Your task to perform on an android device: check android version Image 0: 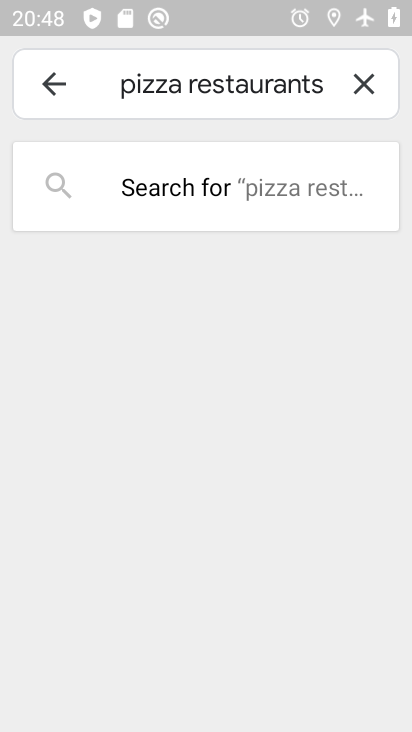
Step 0: press home button
Your task to perform on an android device: check android version Image 1: 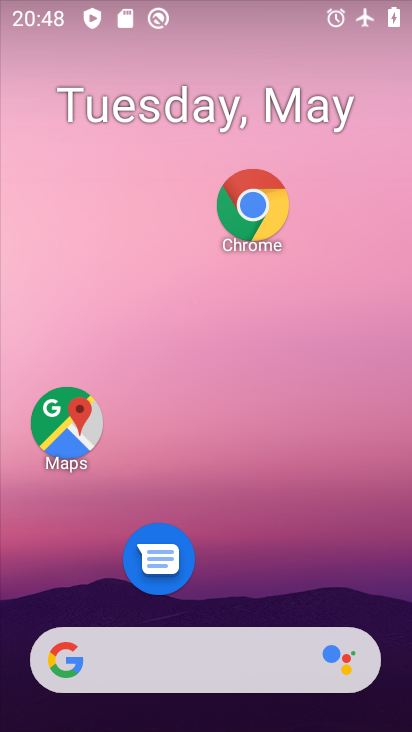
Step 1: drag from (219, 582) to (203, 152)
Your task to perform on an android device: check android version Image 2: 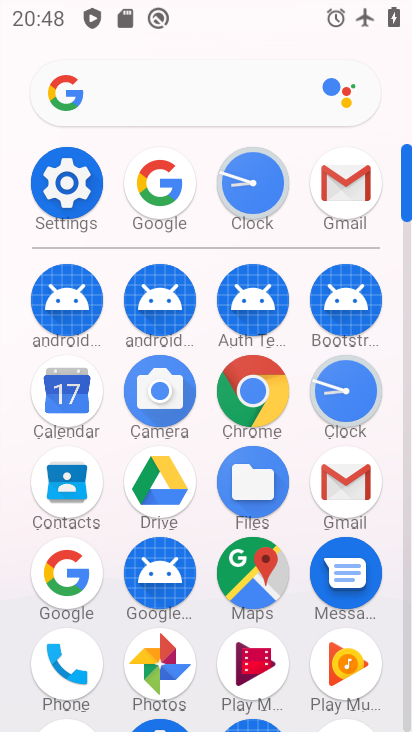
Step 2: click (42, 195)
Your task to perform on an android device: check android version Image 3: 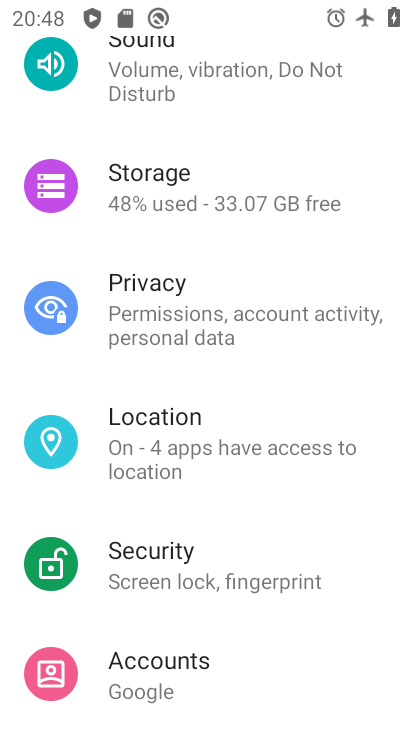
Step 3: drag from (227, 651) to (228, 340)
Your task to perform on an android device: check android version Image 4: 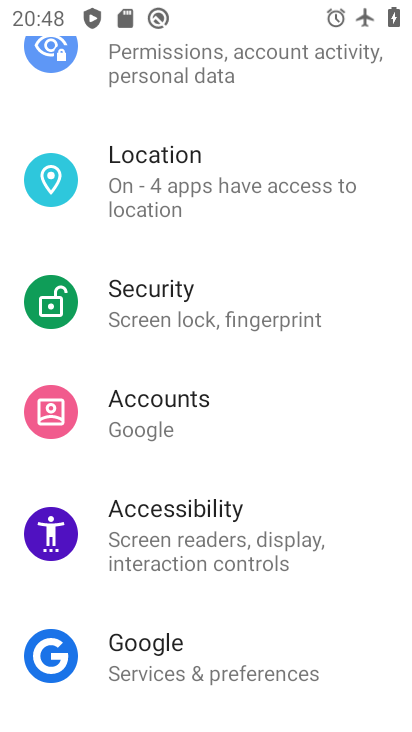
Step 4: drag from (227, 554) to (224, 244)
Your task to perform on an android device: check android version Image 5: 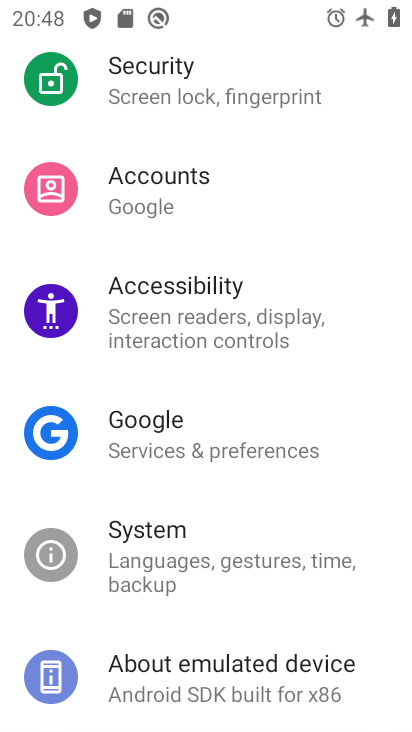
Step 5: drag from (230, 468) to (228, 177)
Your task to perform on an android device: check android version Image 6: 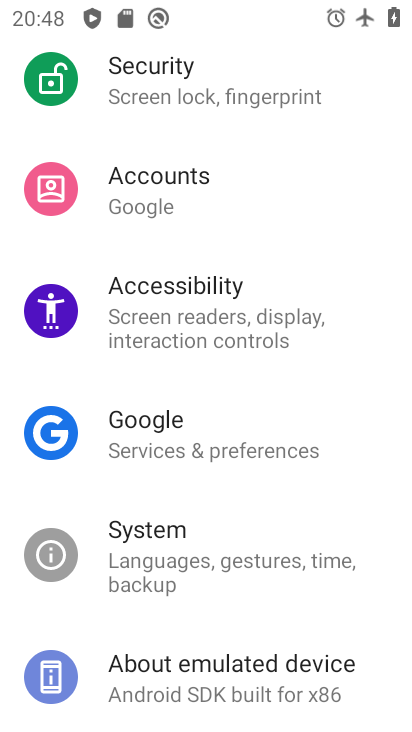
Step 6: drag from (230, 173) to (231, 393)
Your task to perform on an android device: check android version Image 7: 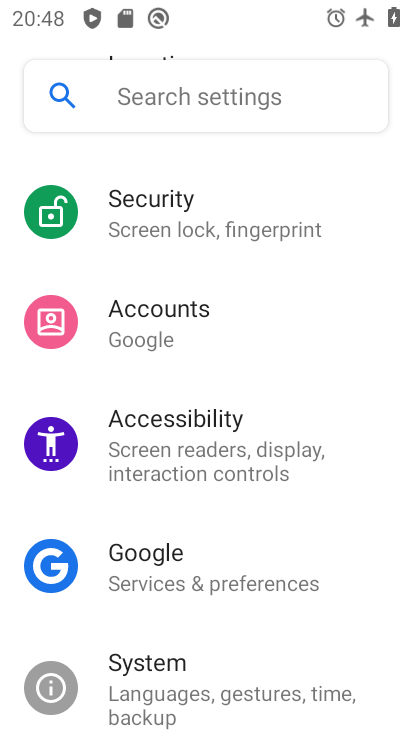
Step 7: drag from (212, 199) to (212, 467)
Your task to perform on an android device: check android version Image 8: 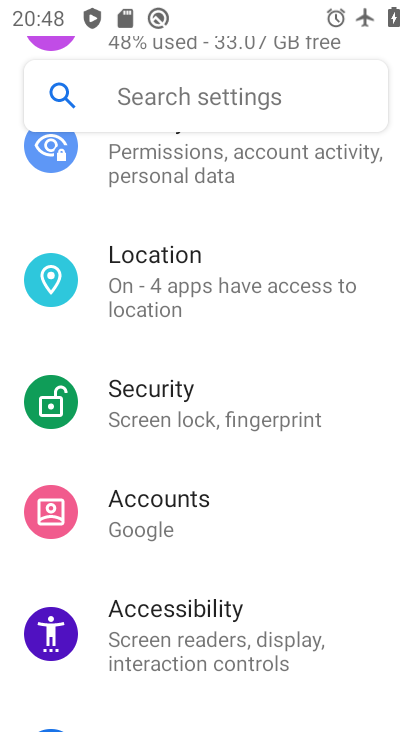
Step 8: drag from (213, 376) to (220, 563)
Your task to perform on an android device: check android version Image 9: 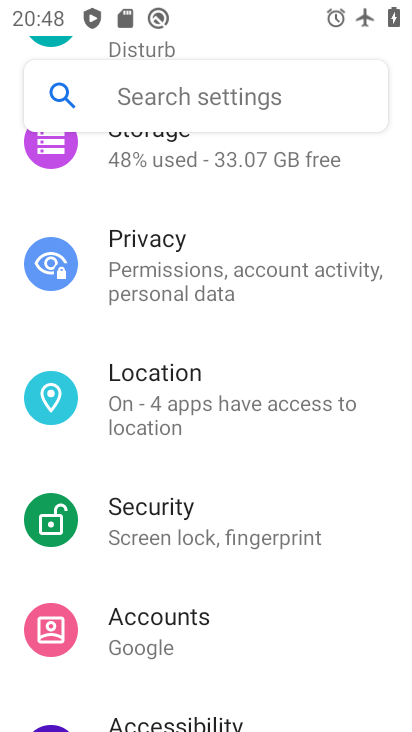
Step 9: drag from (242, 330) to (237, 478)
Your task to perform on an android device: check android version Image 10: 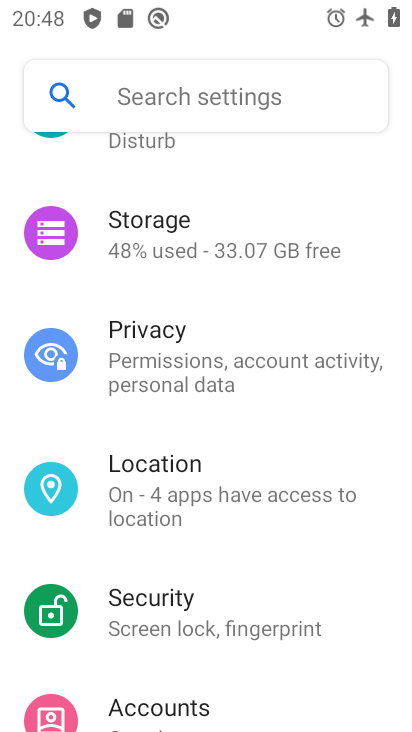
Step 10: drag from (237, 293) to (237, 477)
Your task to perform on an android device: check android version Image 11: 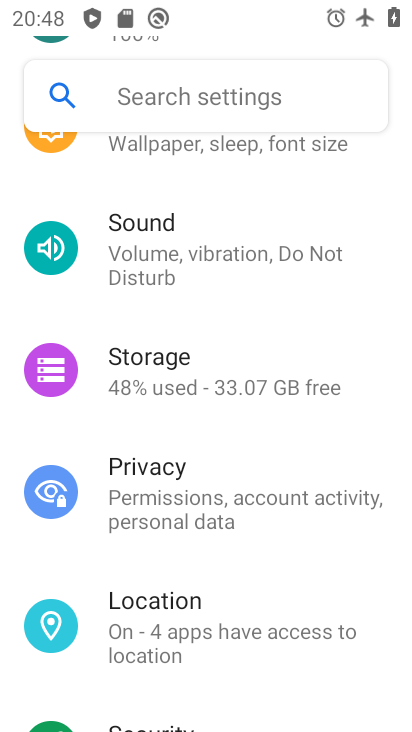
Step 11: drag from (237, 325) to (233, 469)
Your task to perform on an android device: check android version Image 12: 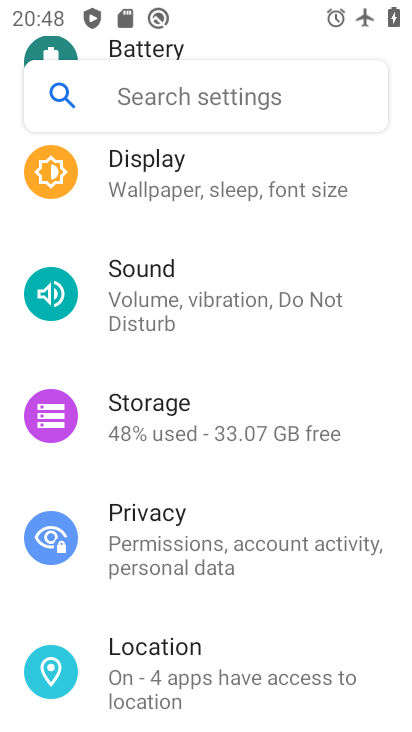
Step 12: drag from (229, 297) to (229, 504)
Your task to perform on an android device: check android version Image 13: 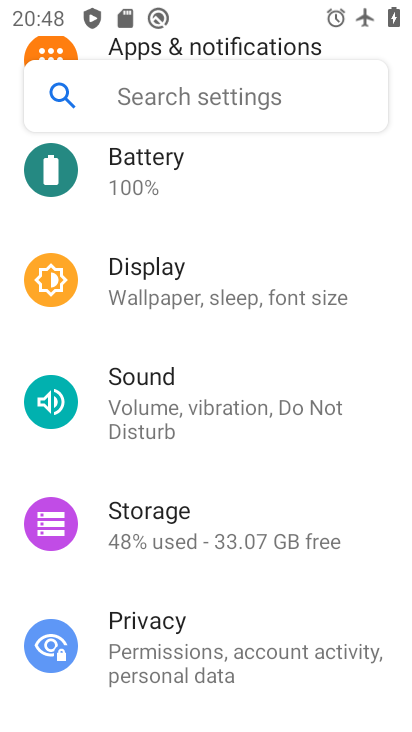
Step 13: drag from (210, 512) to (216, 144)
Your task to perform on an android device: check android version Image 14: 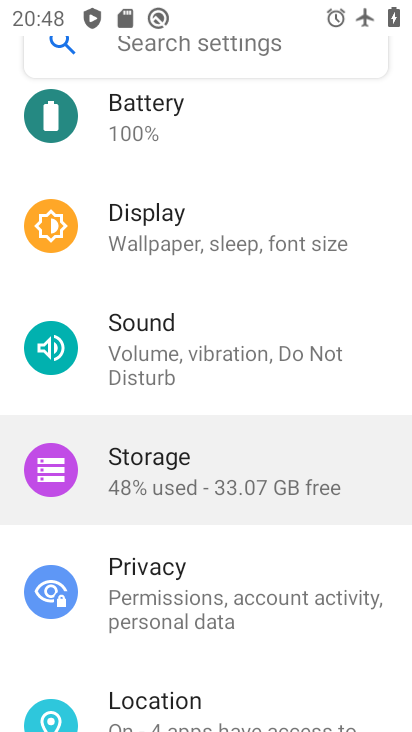
Step 14: drag from (203, 434) to (209, 206)
Your task to perform on an android device: check android version Image 15: 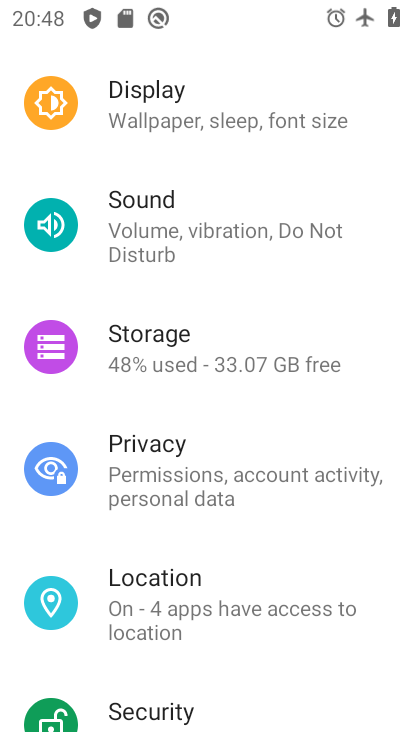
Step 15: drag from (215, 451) to (222, 139)
Your task to perform on an android device: check android version Image 16: 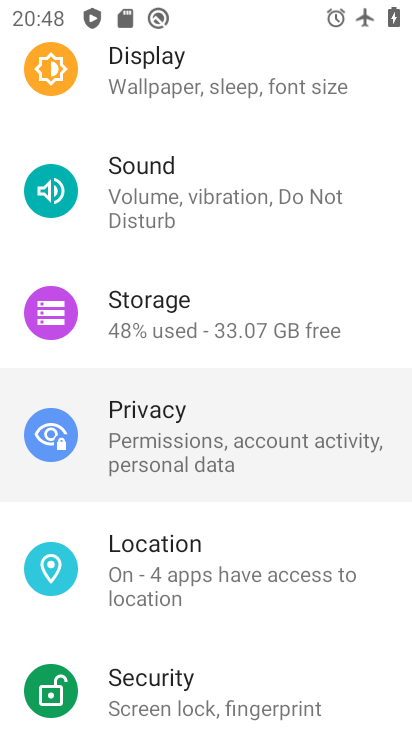
Step 16: drag from (221, 515) to (225, 238)
Your task to perform on an android device: check android version Image 17: 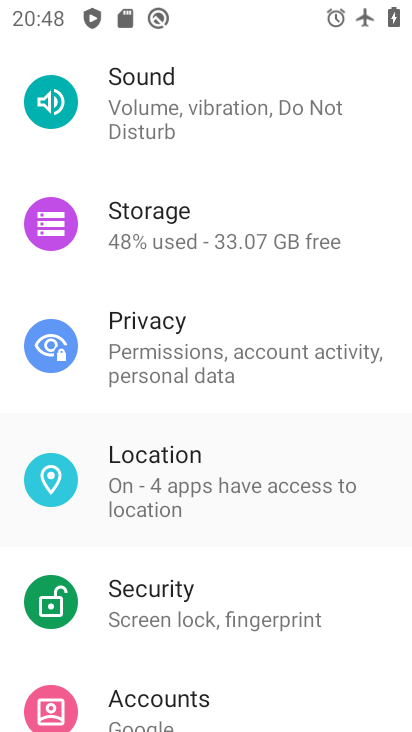
Step 17: drag from (212, 556) to (224, 244)
Your task to perform on an android device: check android version Image 18: 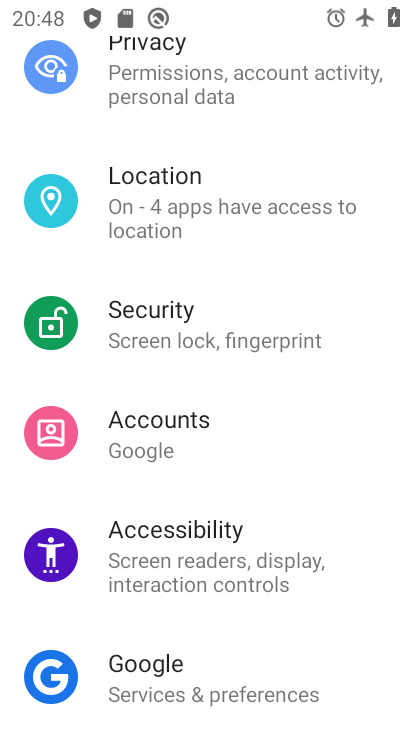
Step 18: drag from (218, 576) to (235, 260)
Your task to perform on an android device: check android version Image 19: 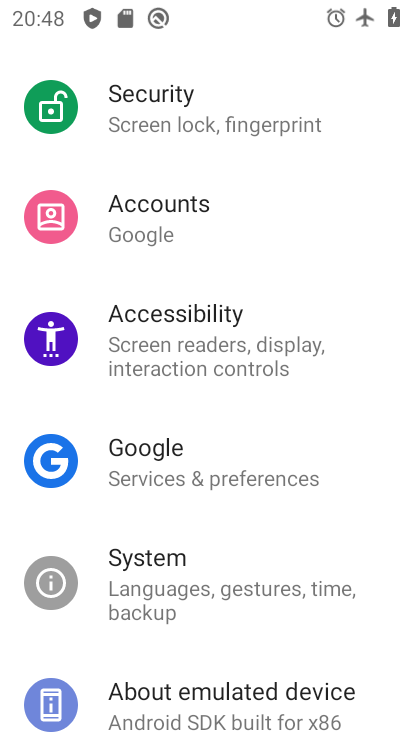
Step 19: drag from (209, 634) to (231, 239)
Your task to perform on an android device: check android version Image 20: 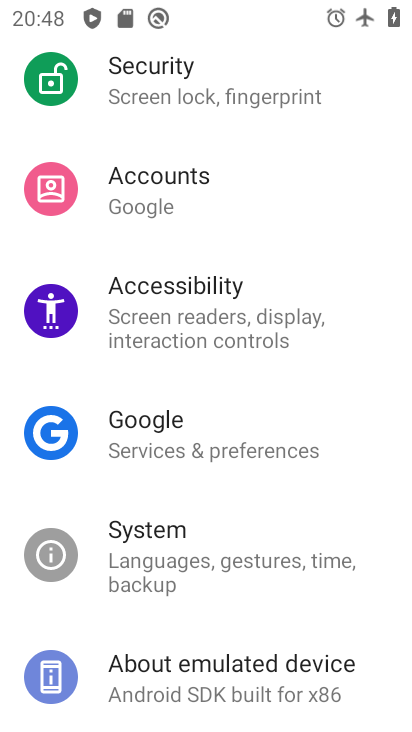
Step 20: click (216, 645)
Your task to perform on an android device: check android version Image 21: 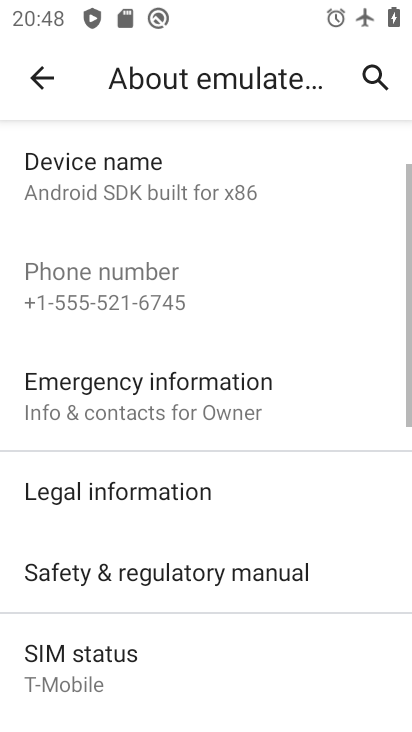
Step 21: click (202, 251)
Your task to perform on an android device: check android version Image 22: 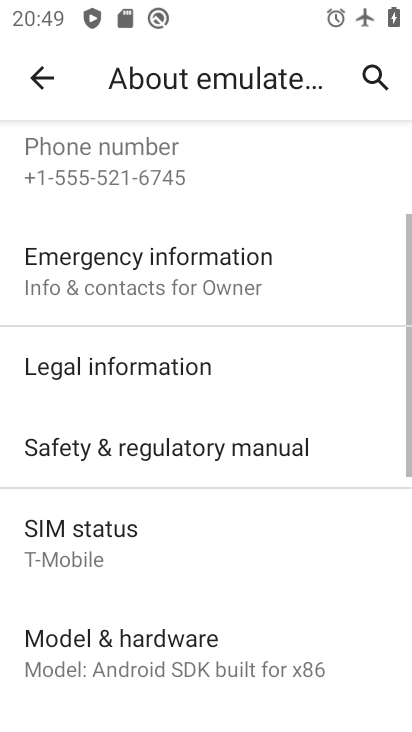
Step 22: drag from (174, 628) to (196, 252)
Your task to perform on an android device: check android version Image 23: 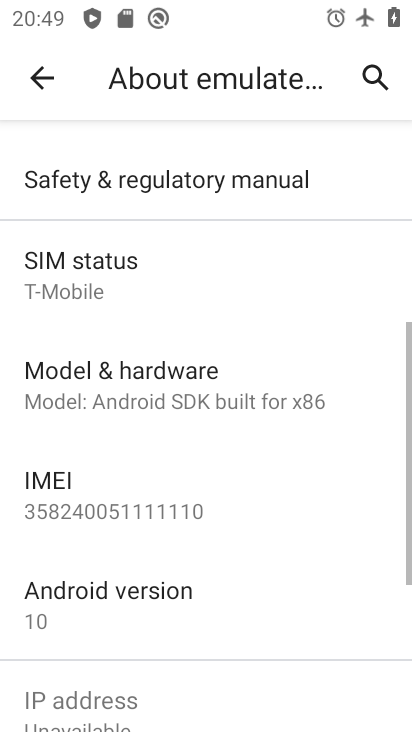
Step 23: click (104, 588)
Your task to perform on an android device: check android version Image 24: 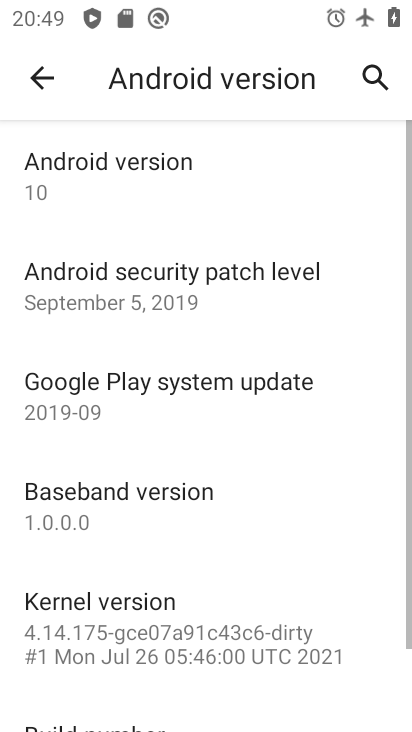
Step 24: click (156, 178)
Your task to perform on an android device: check android version Image 25: 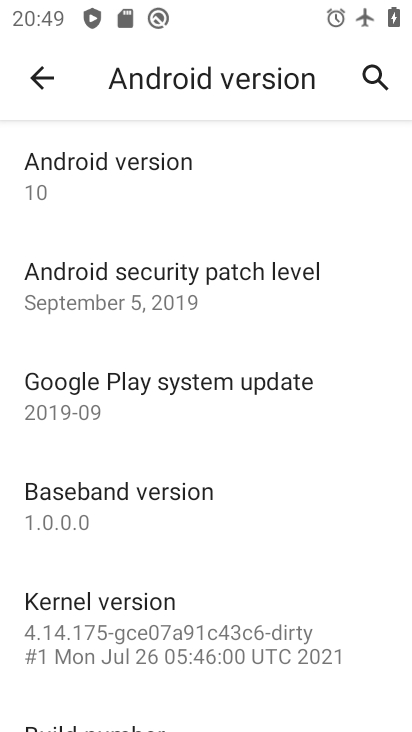
Step 25: click (38, 187)
Your task to perform on an android device: check android version Image 26: 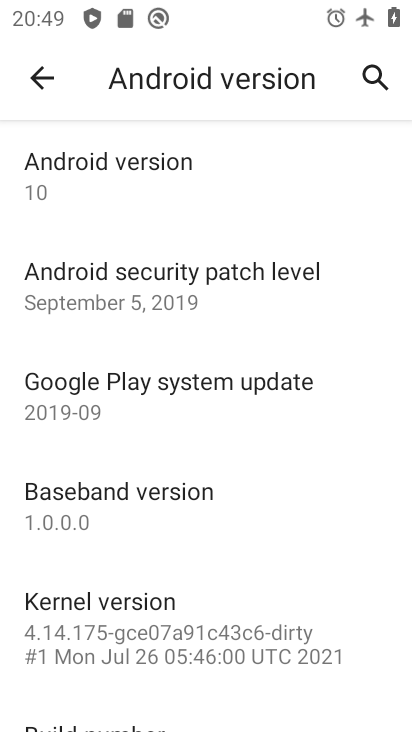
Step 26: click (39, 186)
Your task to perform on an android device: check android version Image 27: 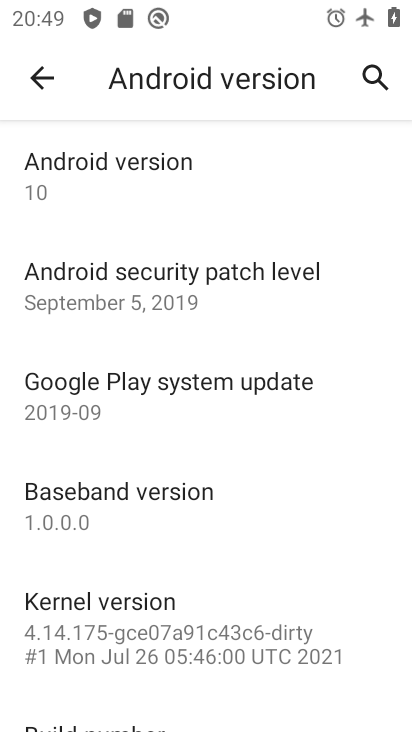
Step 27: click (39, 186)
Your task to perform on an android device: check android version Image 28: 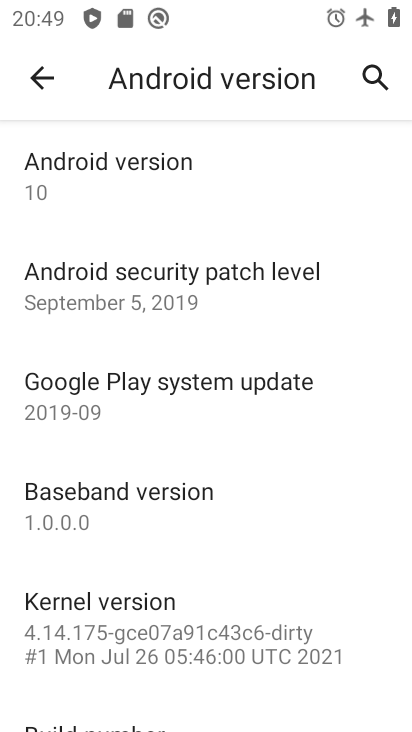
Step 28: task complete